Your task to perform on an android device: empty trash in google photos Image 0: 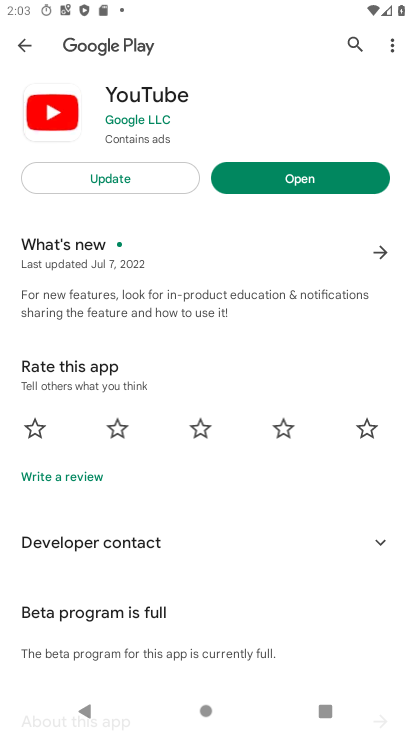
Step 0: task impossible